Your task to perform on an android device: Open the web browser Image 0: 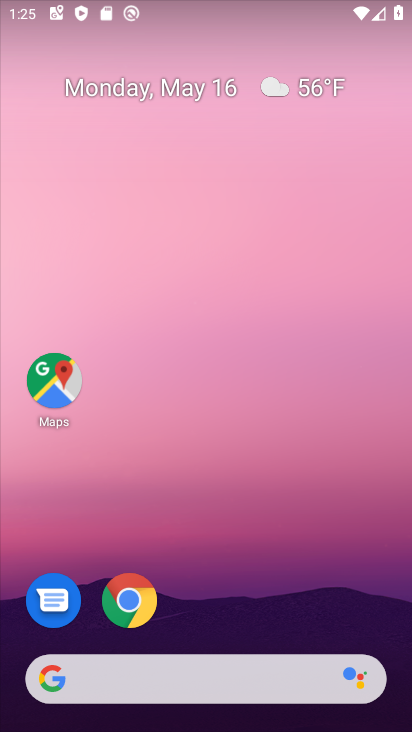
Step 0: click (140, 618)
Your task to perform on an android device: Open the web browser Image 1: 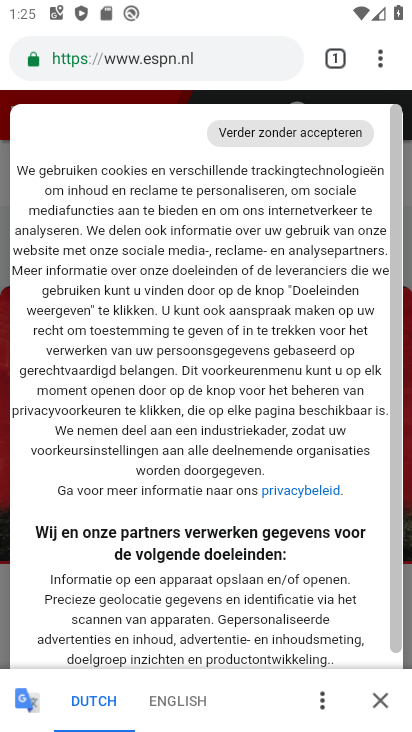
Step 1: task complete